Your task to perform on an android device: search for starred emails in the gmail app Image 0: 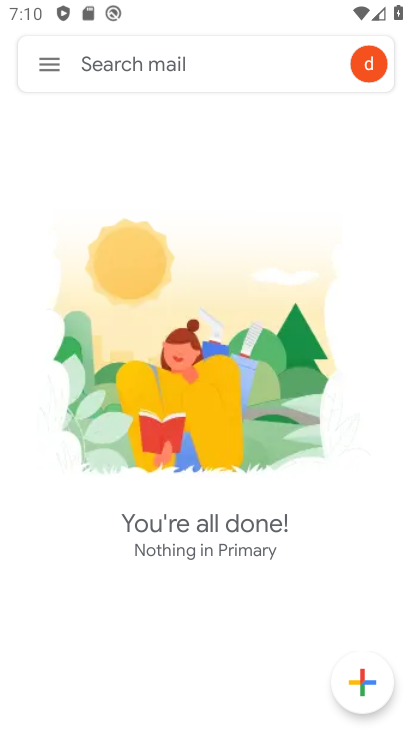
Step 0: press home button
Your task to perform on an android device: search for starred emails in the gmail app Image 1: 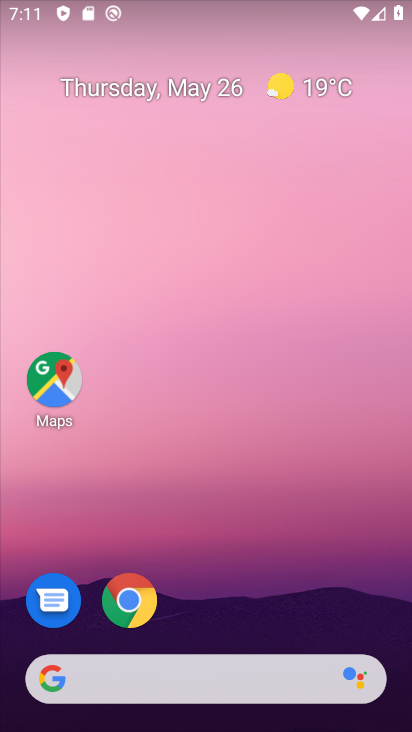
Step 1: drag from (244, 719) to (119, 79)
Your task to perform on an android device: search for starred emails in the gmail app Image 2: 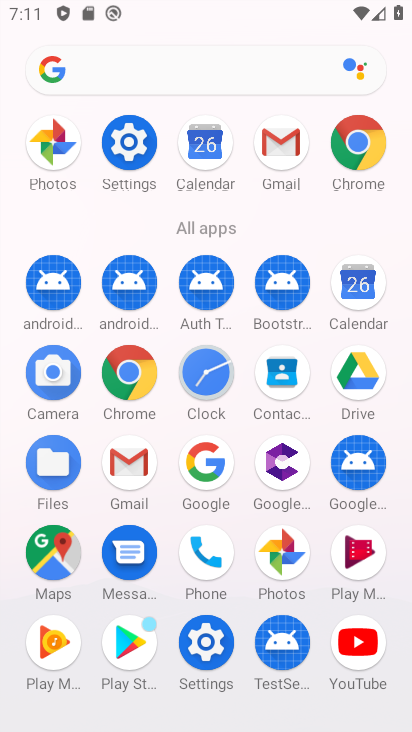
Step 2: click (280, 172)
Your task to perform on an android device: search for starred emails in the gmail app Image 3: 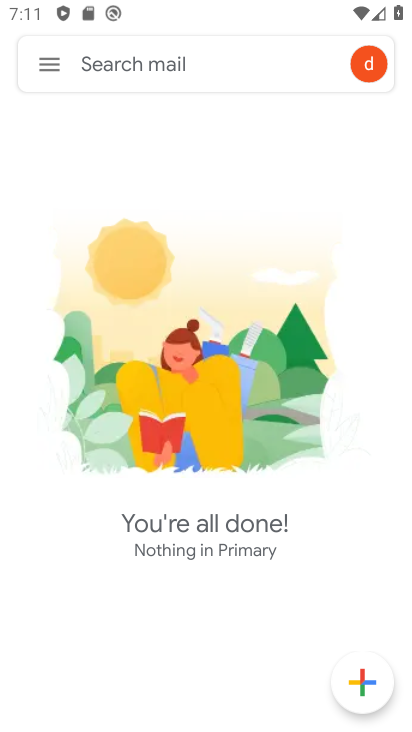
Step 3: click (44, 66)
Your task to perform on an android device: search for starred emails in the gmail app Image 4: 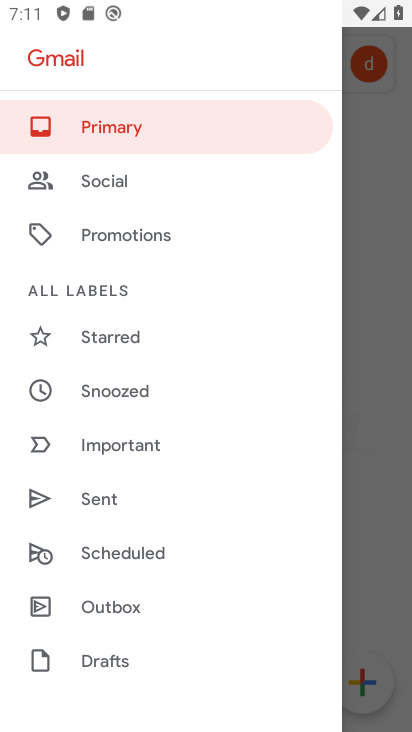
Step 4: click (136, 332)
Your task to perform on an android device: search for starred emails in the gmail app Image 5: 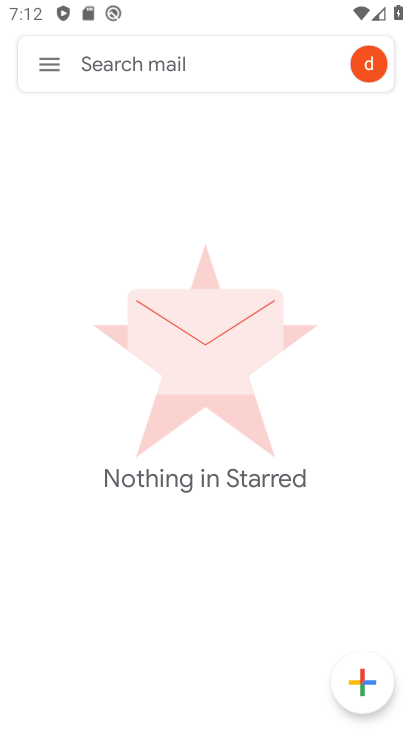
Step 5: click (44, 59)
Your task to perform on an android device: search for starred emails in the gmail app Image 6: 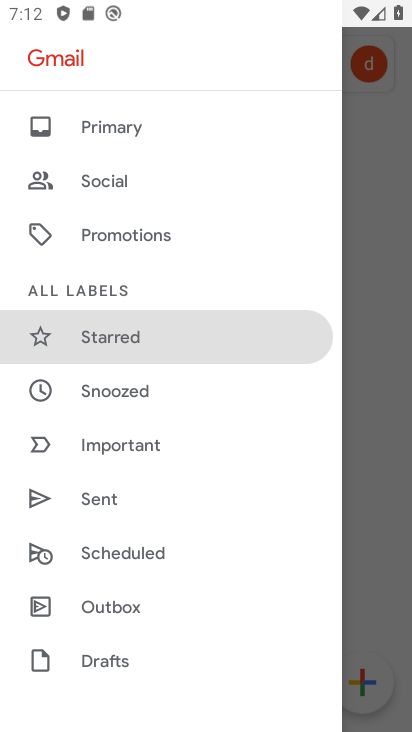
Step 6: click (155, 343)
Your task to perform on an android device: search for starred emails in the gmail app Image 7: 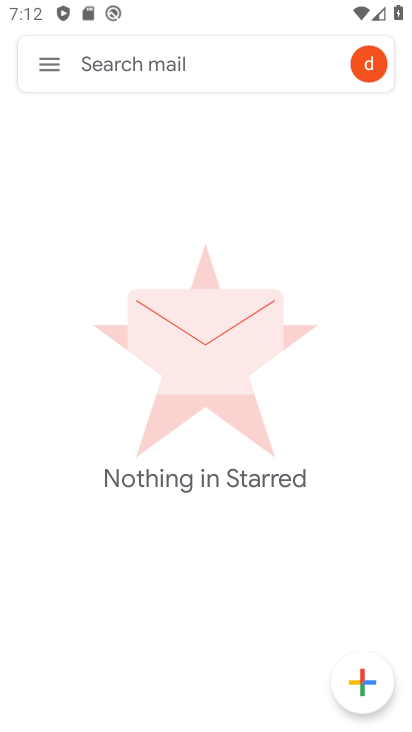
Step 7: task complete